Your task to perform on an android device: Show me recent news Image 0: 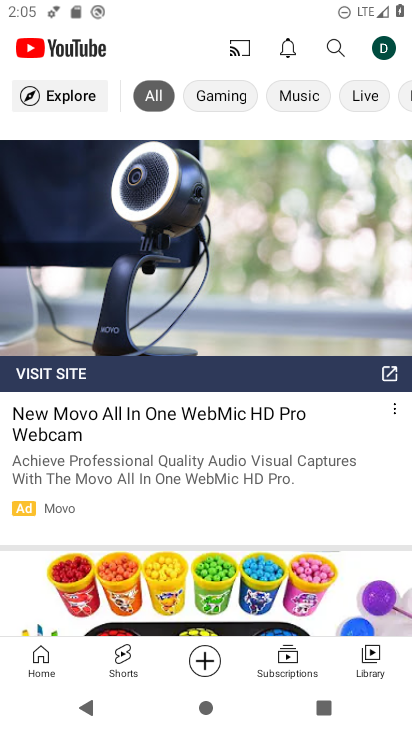
Step 0: press home button
Your task to perform on an android device: Show me recent news Image 1: 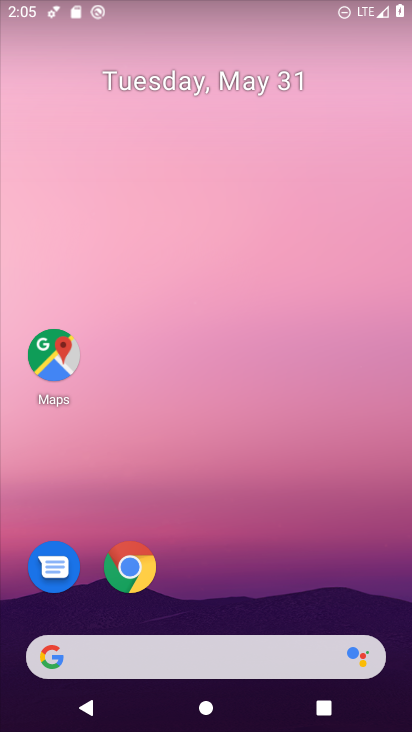
Step 1: drag from (188, 597) to (194, 149)
Your task to perform on an android device: Show me recent news Image 2: 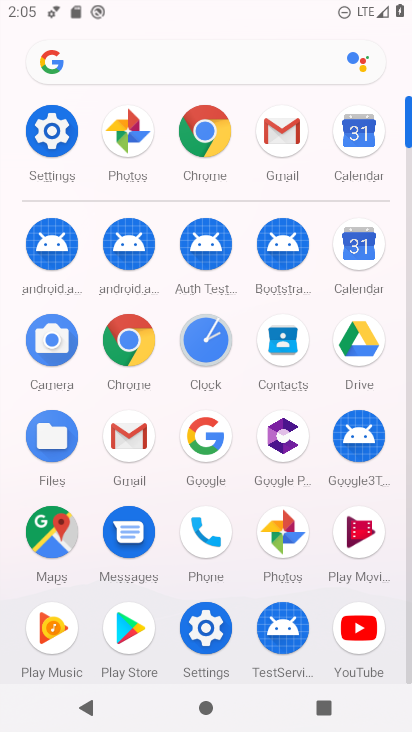
Step 2: click (192, 436)
Your task to perform on an android device: Show me recent news Image 3: 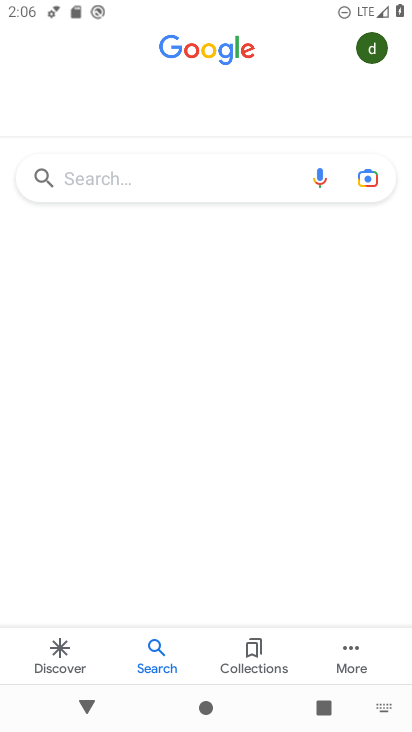
Step 3: click (154, 177)
Your task to perform on an android device: Show me recent news Image 4: 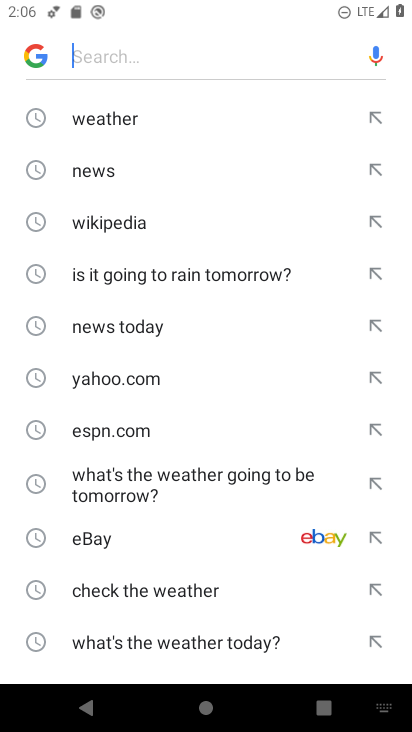
Step 4: click (122, 164)
Your task to perform on an android device: Show me recent news Image 5: 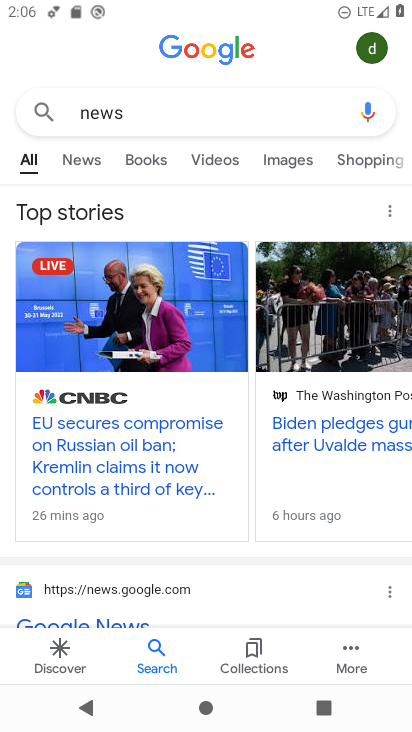
Step 5: click (96, 171)
Your task to perform on an android device: Show me recent news Image 6: 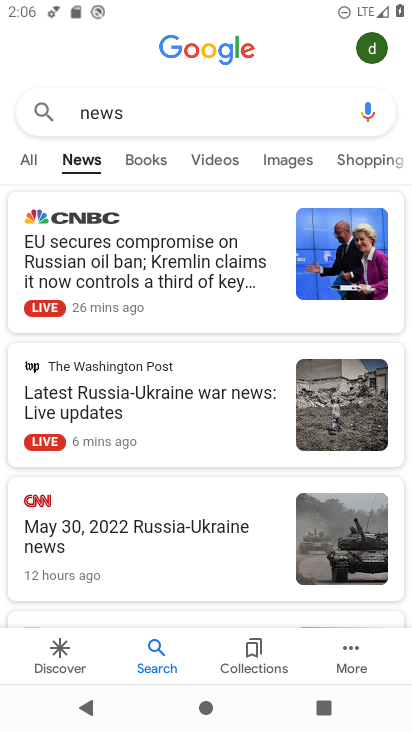
Step 6: task complete